Your task to perform on an android device: Go to ESPN.com Image 0: 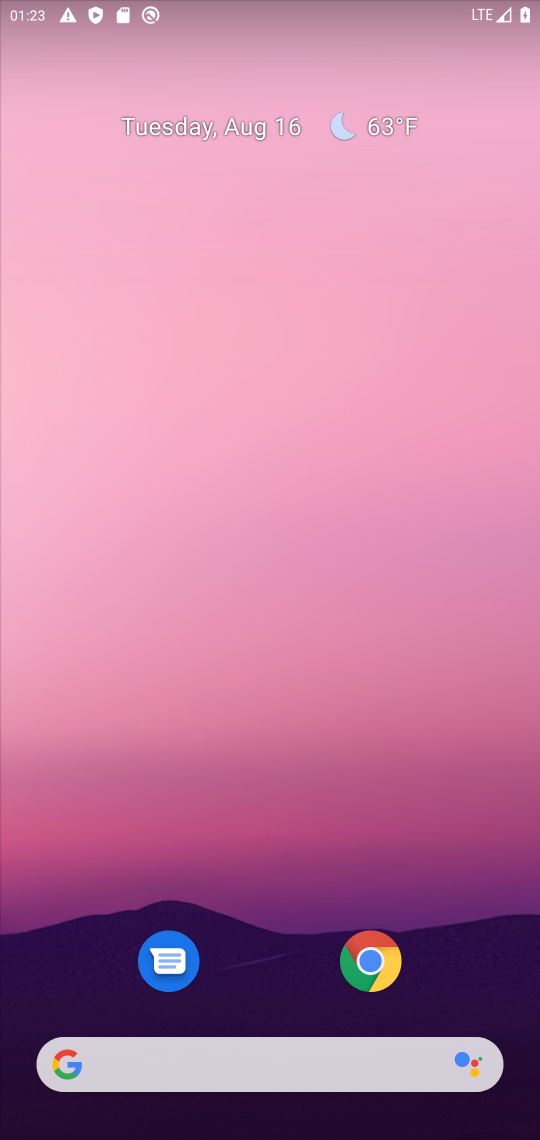
Step 0: press home button
Your task to perform on an android device: Go to ESPN.com Image 1: 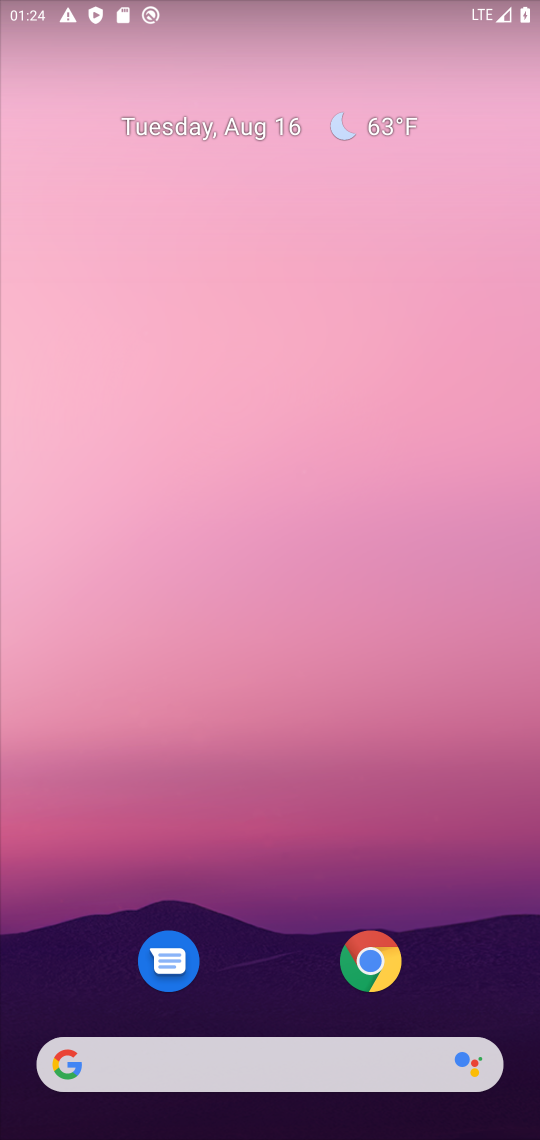
Step 1: click (364, 990)
Your task to perform on an android device: Go to ESPN.com Image 2: 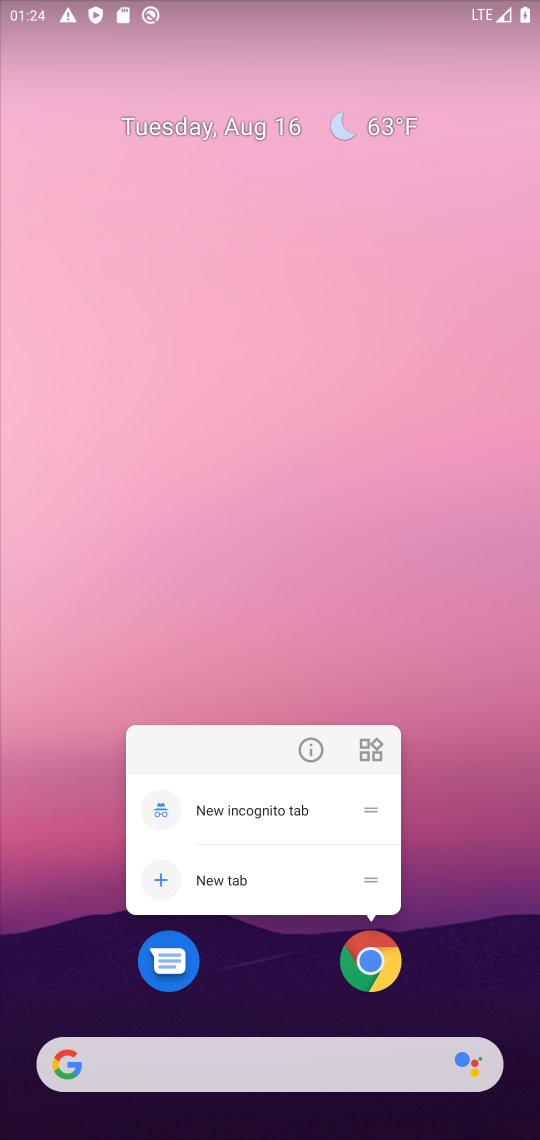
Step 2: click (368, 964)
Your task to perform on an android device: Go to ESPN.com Image 3: 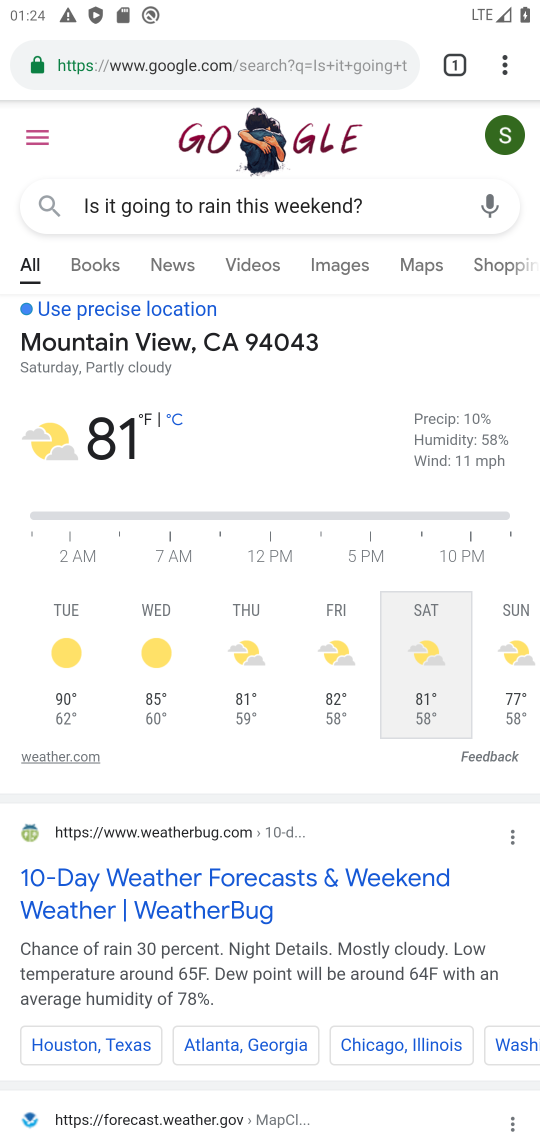
Step 3: click (296, 52)
Your task to perform on an android device: Go to ESPN.com Image 4: 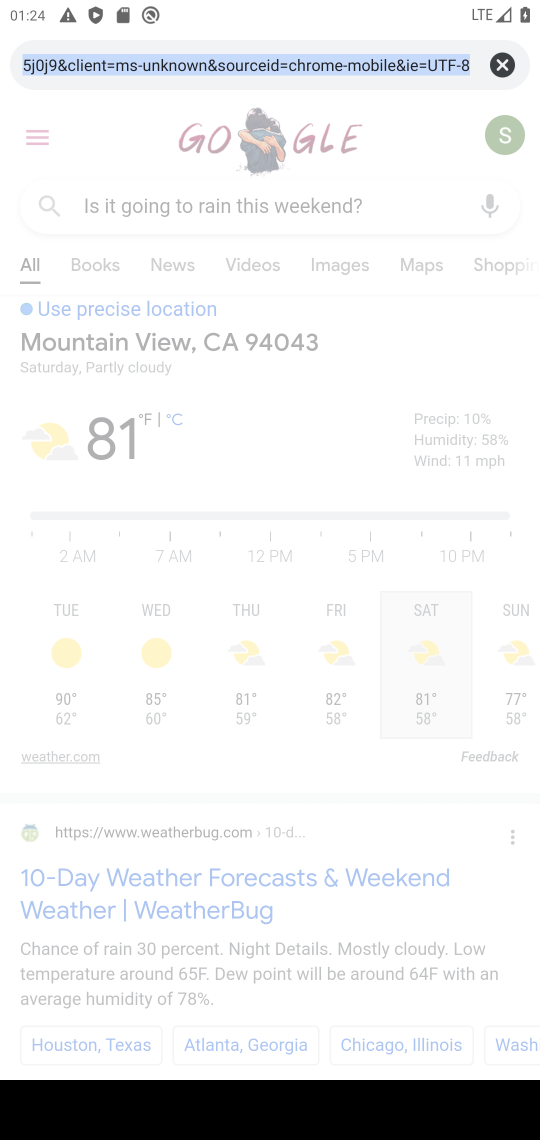
Step 4: type "ESPN.com"
Your task to perform on an android device: Go to ESPN.com Image 5: 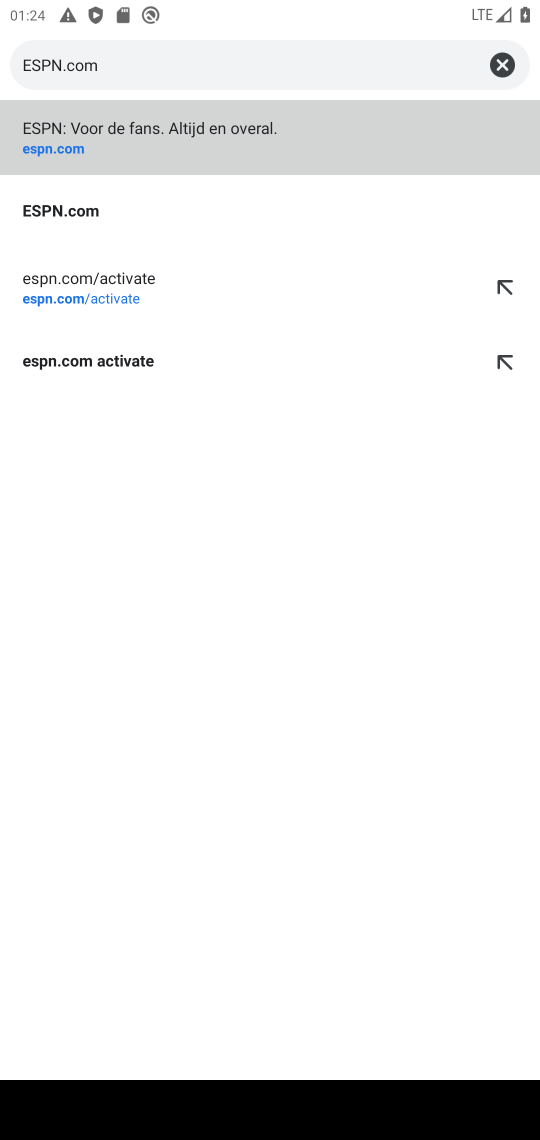
Step 5: click (154, 134)
Your task to perform on an android device: Go to ESPN.com Image 6: 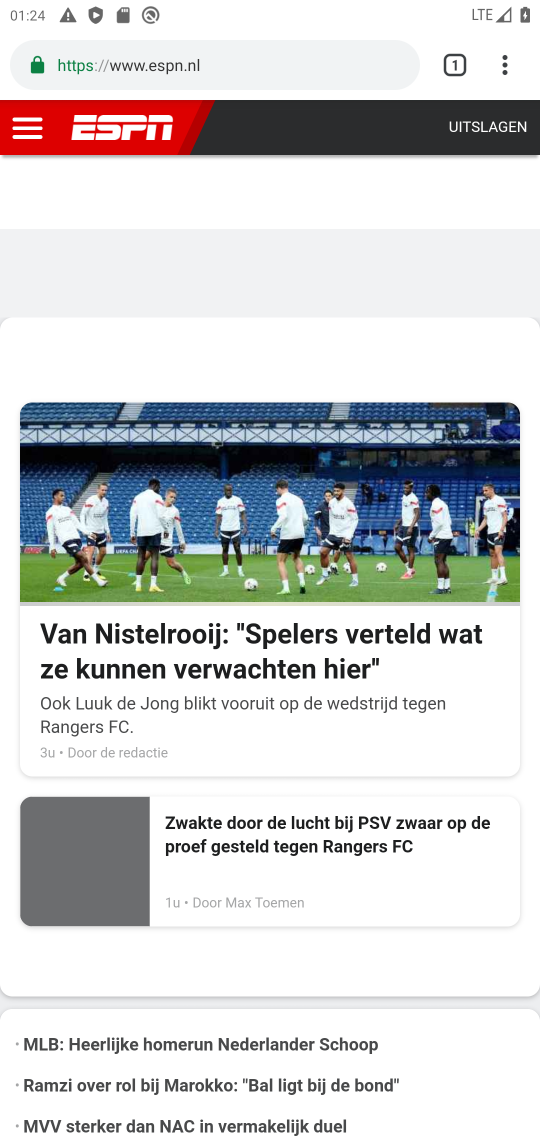
Step 6: task complete